Your task to perform on an android device: Open the map Image 0: 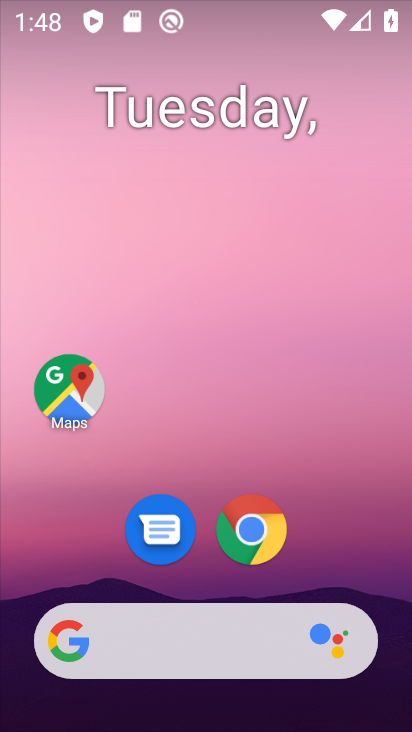
Step 0: click (68, 396)
Your task to perform on an android device: Open the map Image 1: 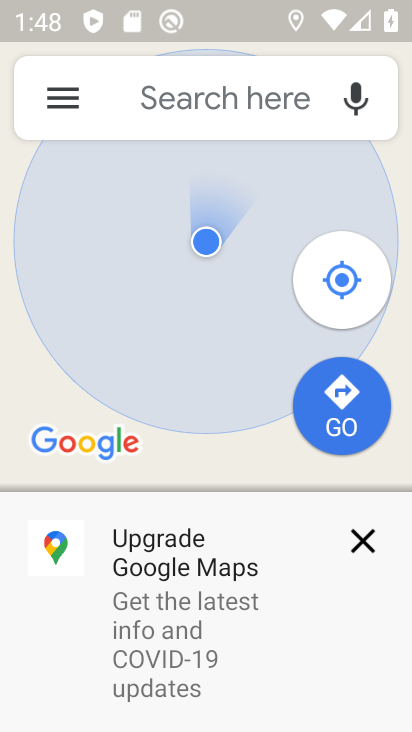
Step 1: task complete